Your task to perform on an android device: Is it going to rain tomorrow? Image 0: 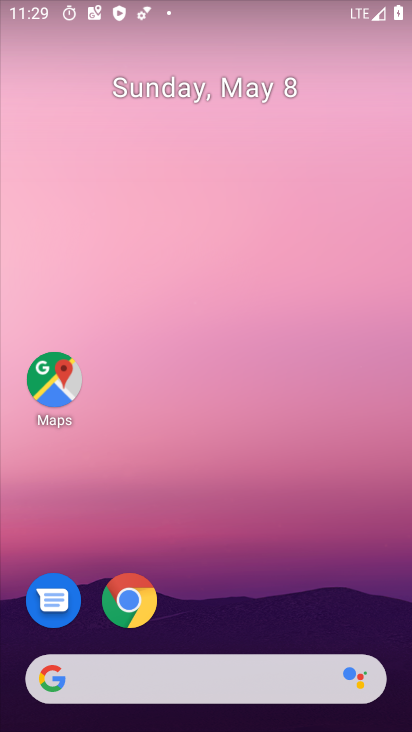
Step 0: click (273, 581)
Your task to perform on an android device: Is it going to rain tomorrow? Image 1: 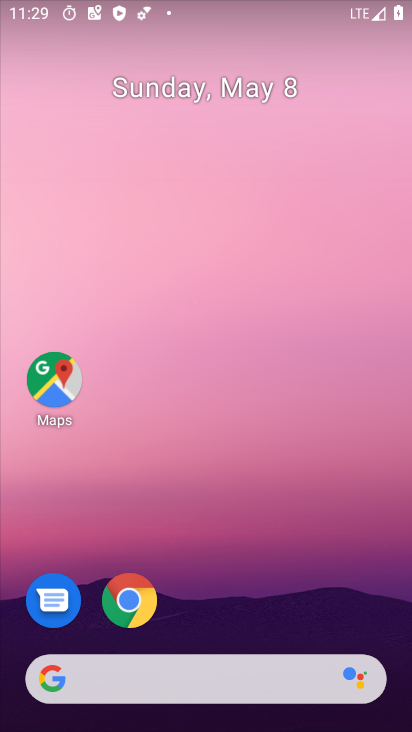
Step 1: drag from (194, 595) to (303, 140)
Your task to perform on an android device: Is it going to rain tomorrow? Image 2: 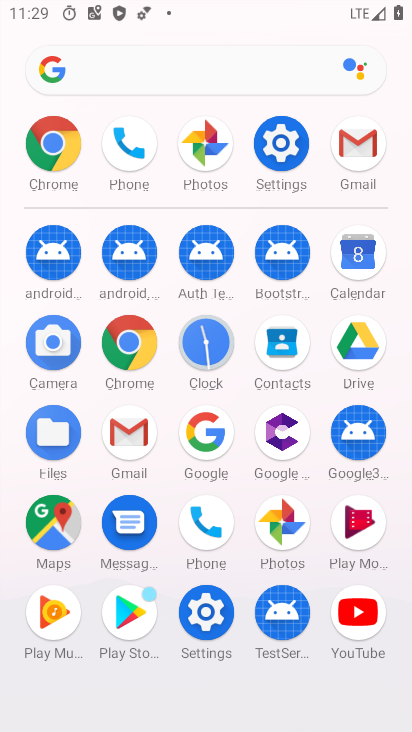
Step 2: click (219, 443)
Your task to perform on an android device: Is it going to rain tomorrow? Image 3: 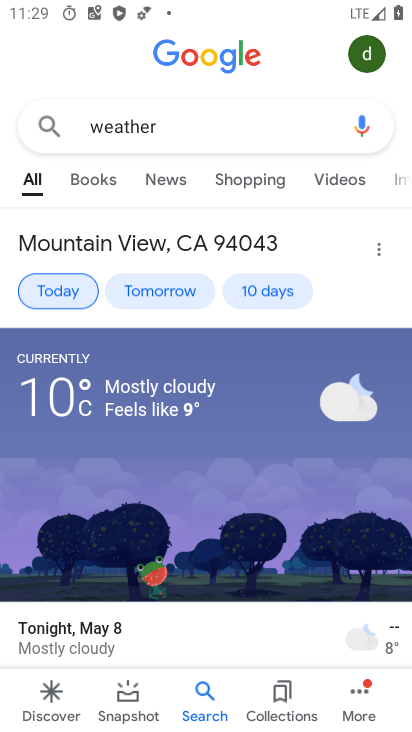
Step 3: click (185, 290)
Your task to perform on an android device: Is it going to rain tomorrow? Image 4: 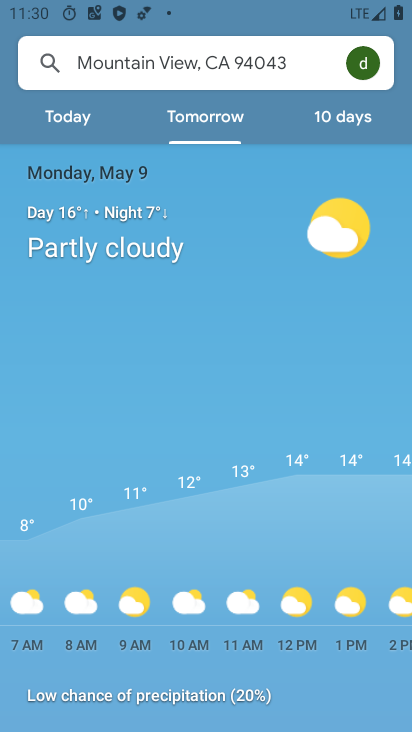
Step 4: task complete